Your task to perform on an android device: Go to wifi settings Image 0: 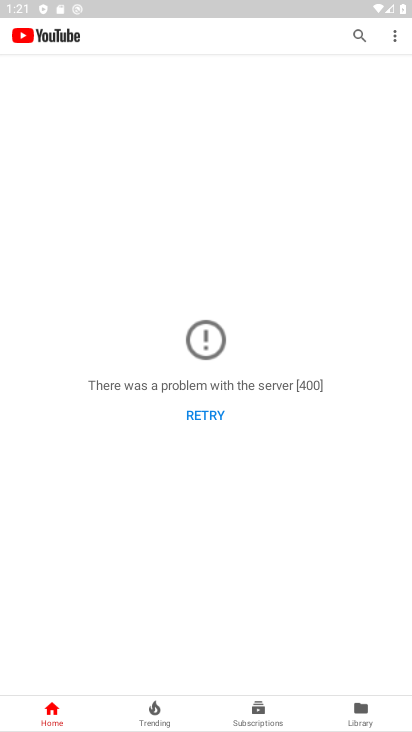
Step 0: press home button
Your task to perform on an android device: Go to wifi settings Image 1: 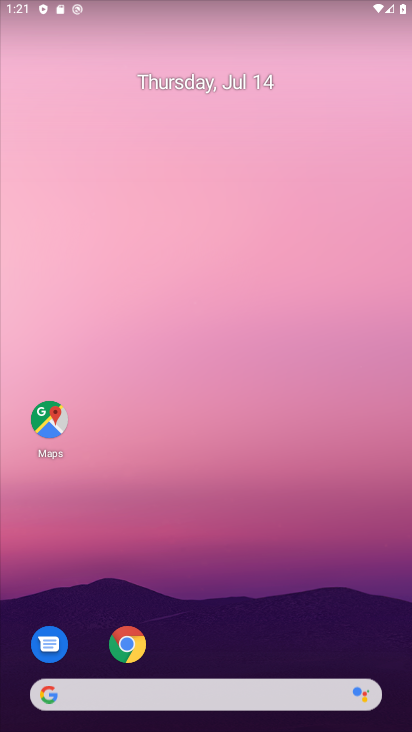
Step 1: drag from (227, 628) to (277, 239)
Your task to perform on an android device: Go to wifi settings Image 2: 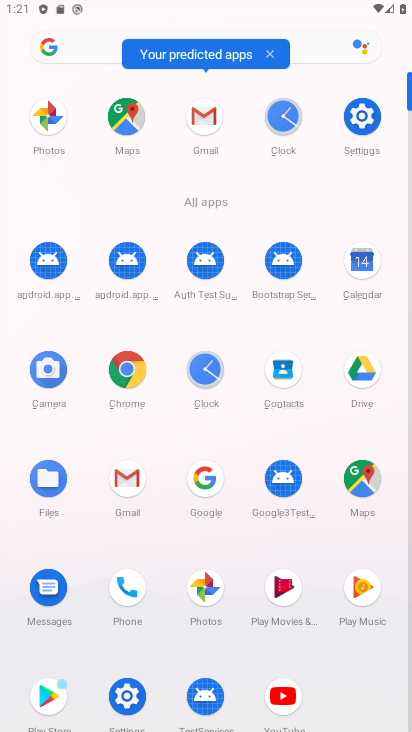
Step 2: click (122, 706)
Your task to perform on an android device: Go to wifi settings Image 3: 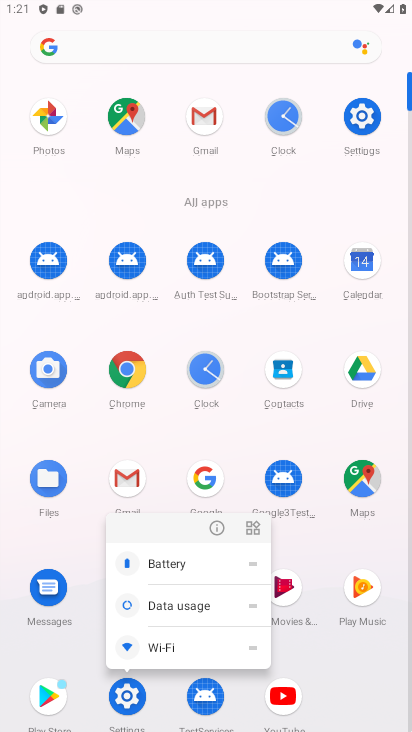
Step 3: click (137, 694)
Your task to perform on an android device: Go to wifi settings Image 4: 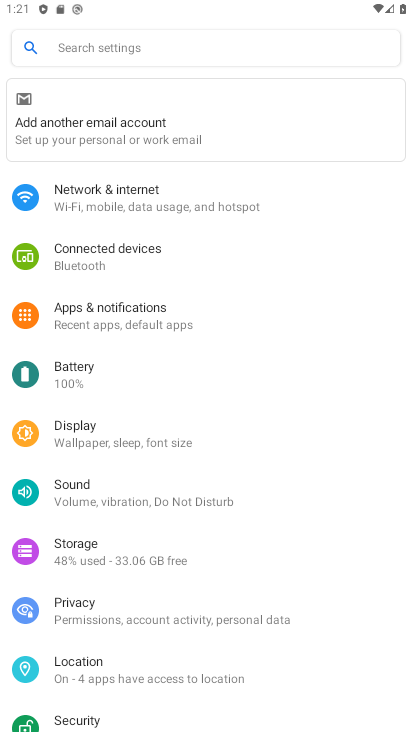
Step 4: click (122, 207)
Your task to perform on an android device: Go to wifi settings Image 5: 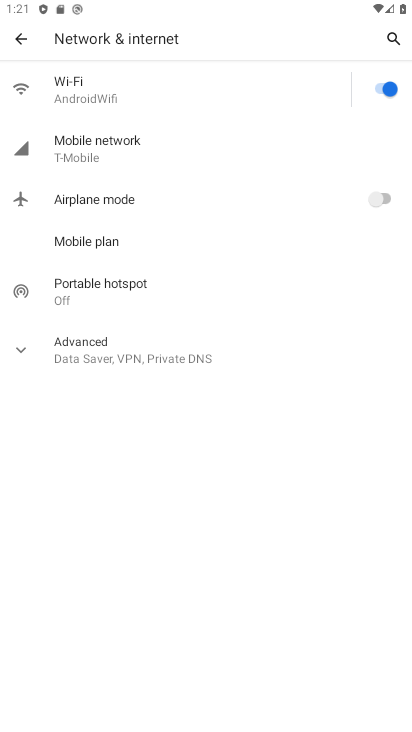
Step 5: click (153, 96)
Your task to perform on an android device: Go to wifi settings Image 6: 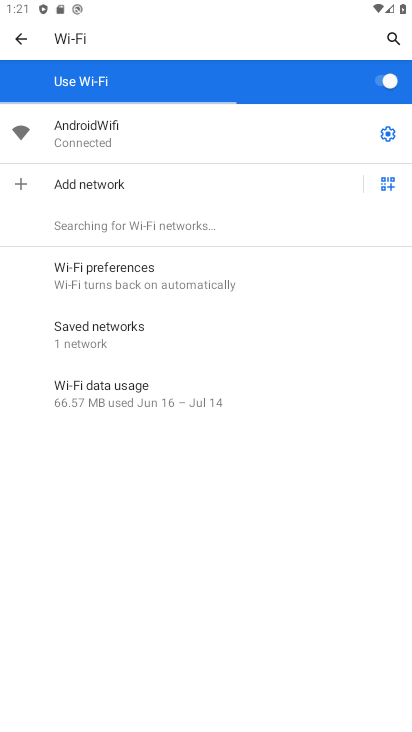
Step 6: task complete